Your task to perform on an android device: Open network settings Image 0: 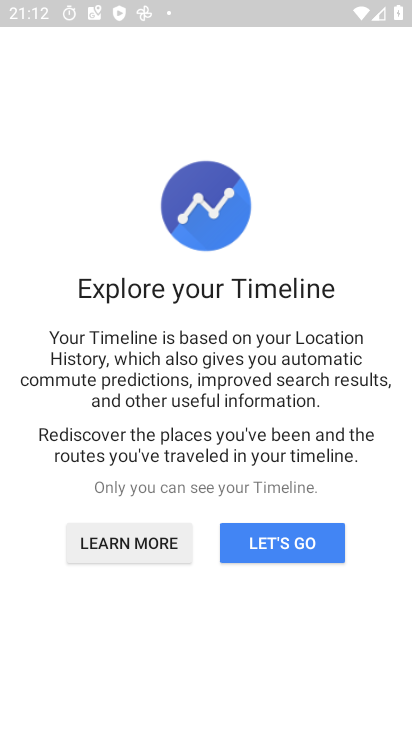
Step 0: press home button
Your task to perform on an android device: Open network settings Image 1: 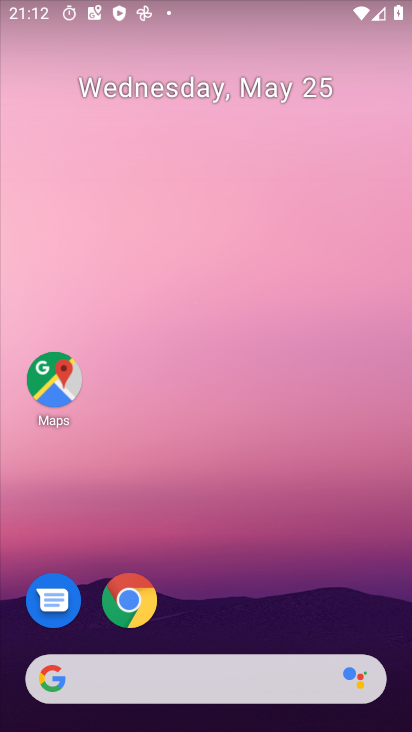
Step 1: drag from (372, 596) to (280, 144)
Your task to perform on an android device: Open network settings Image 2: 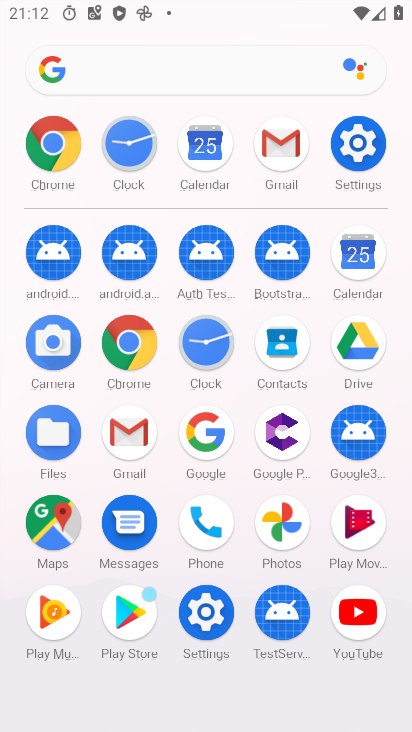
Step 2: click (214, 612)
Your task to perform on an android device: Open network settings Image 3: 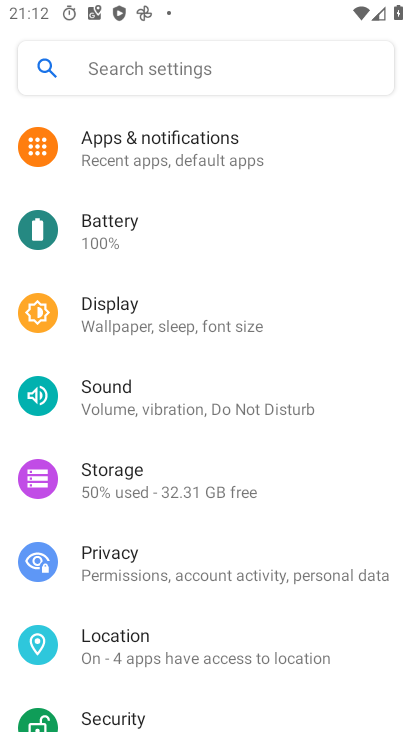
Step 3: drag from (203, 178) to (199, 597)
Your task to perform on an android device: Open network settings Image 4: 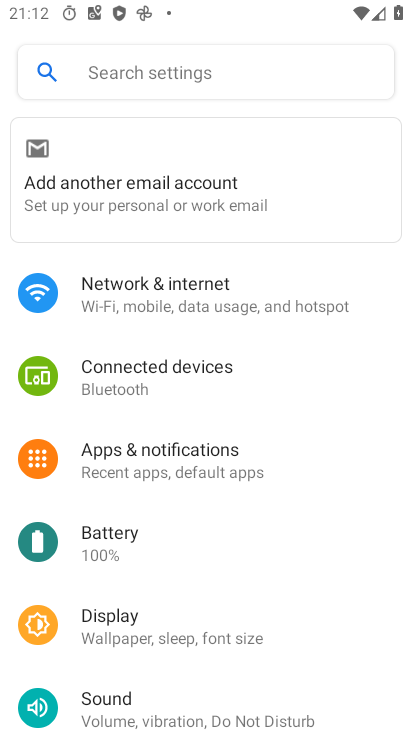
Step 4: click (160, 309)
Your task to perform on an android device: Open network settings Image 5: 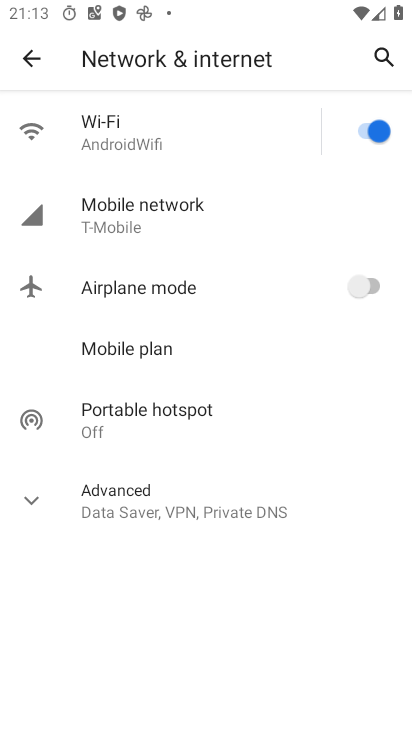
Step 5: task complete